Your task to perform on an android device: change the clock display to analog Image 0: 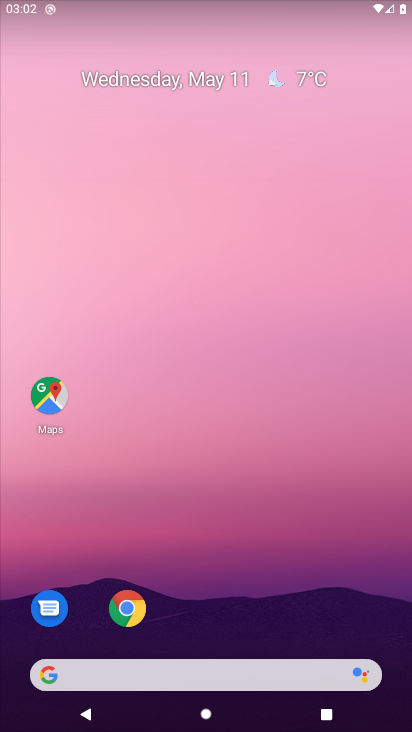
Step 0: drag from (217, 640) to (283, 122)
Your task to perform on an android device: change the clock display to analog Image 1: 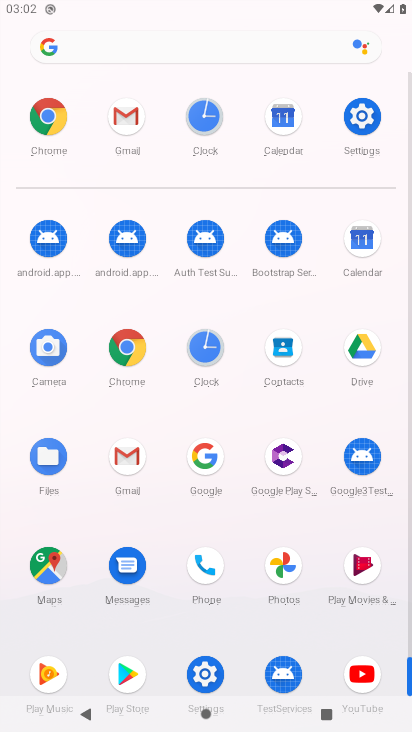
Step 1: click (204, 344)
Your task to perform on an android device: change the clock display to analog Image 2: 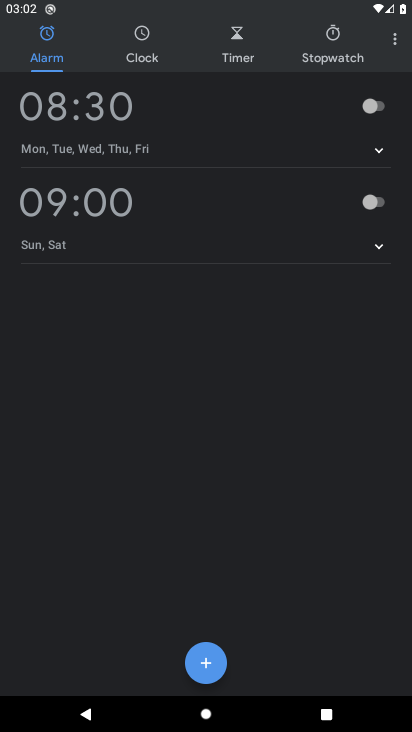
Step 2: click (396, 45)
Your task to perform on an android device: change the clock display to analog Image 3: 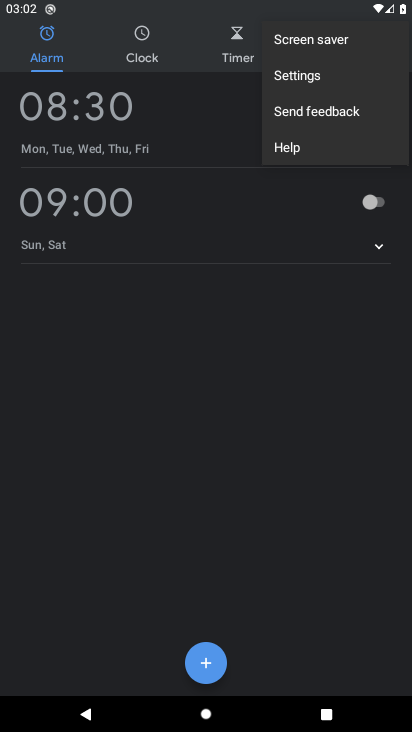
Step 3: click (314, 77)
Your task to perform on an android device: change the clock display to analog Image 4: 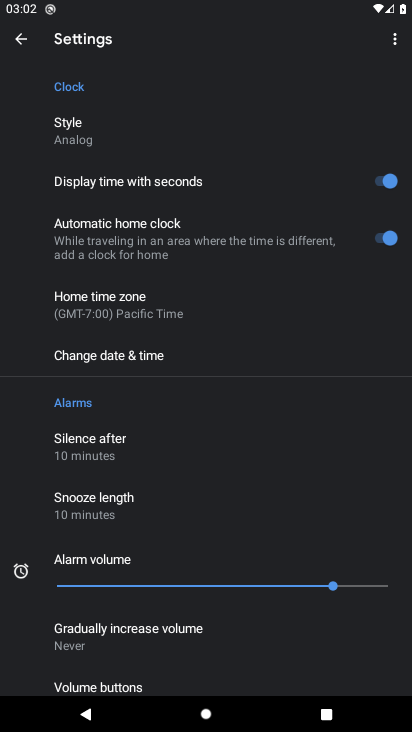
Step 4: click (114, 126)
Your task to perform on an android device: change the clock display to analog Image 5: 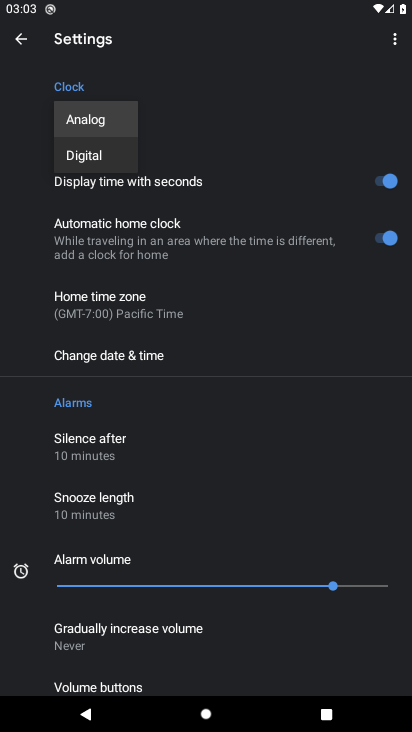
Step 5: click (115, 120)
Your task to perform on an android device: change the clock display to analog Image 6: 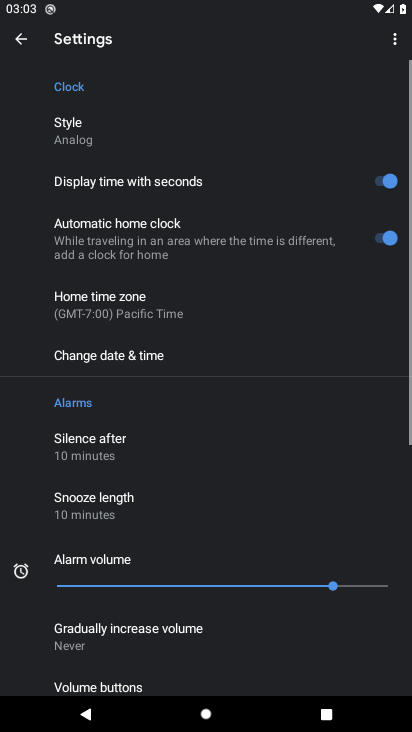
Step 6: task complete